Your task to perform on an android device: toggle priority inbox in the gmail app Image 0: 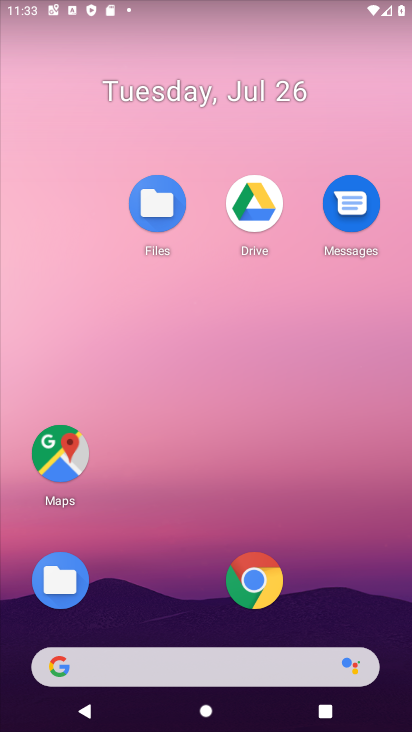
Step 0: drag from (215, 626) to (361, 23)
Your task to perform on an android device: toggle priority inbox in the gmail app Image 1: 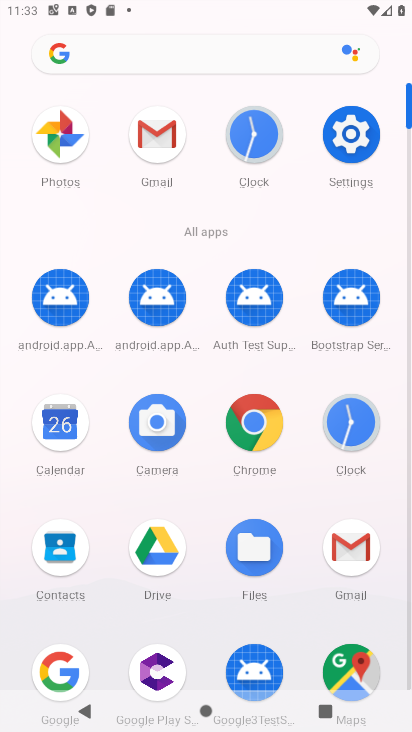
Step 1: click (168, 143)
Your task to perform on an android device: toggle priority inbox in the gmail app Image 2: 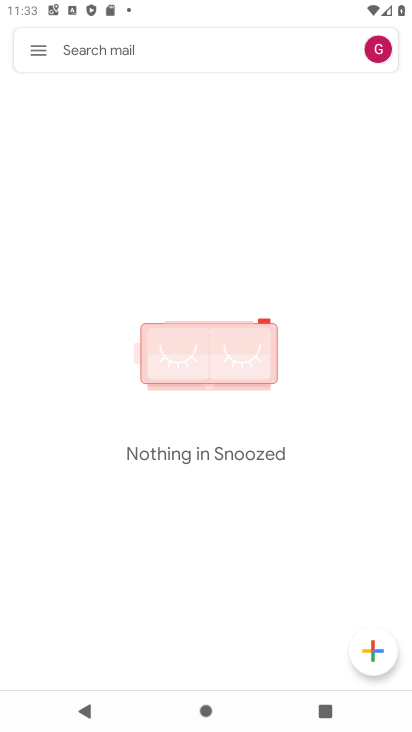
Step 2: click (43, 41)
Your task to perform on an android device: toggle priority inbox in the gmail app Image 3: 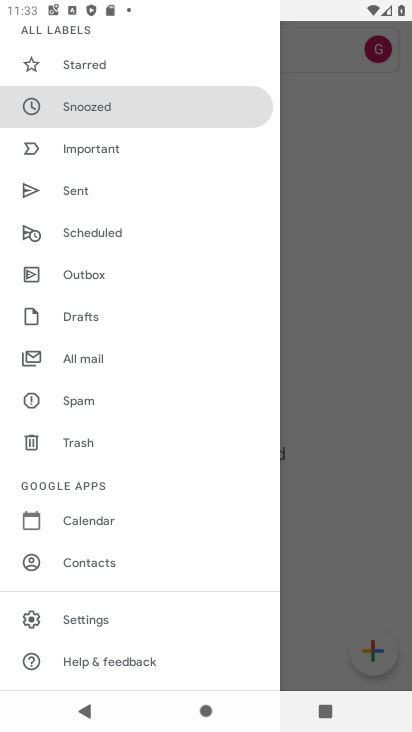
Step 3: click (122, 626)
Your task to perform on an android device: toggle priority inbox in the gmail app Image 4: 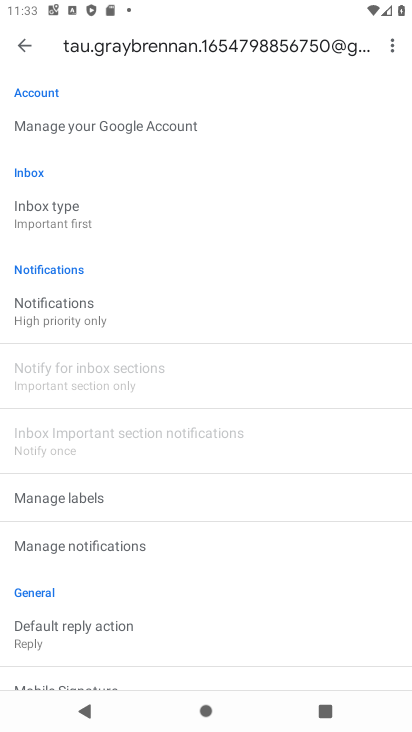
Step 4: click (174, 213)
Your task to perform on an android device: toggle priority inbox in the gmail app Image 5: 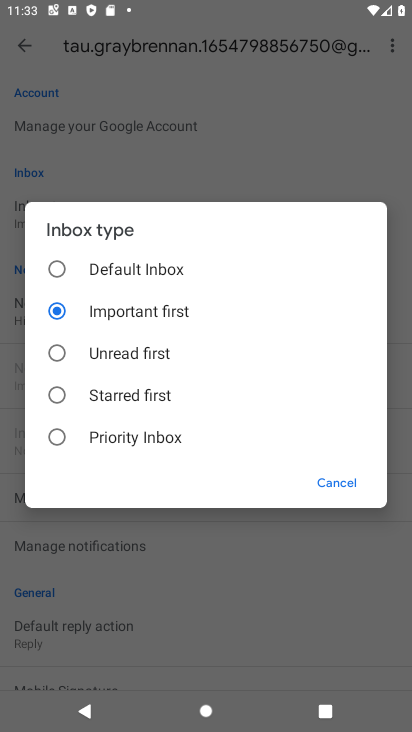
Step 5: click (159, 350)
Your task to perform on an android device: toggle priority inbox in the gmail app Image 6: 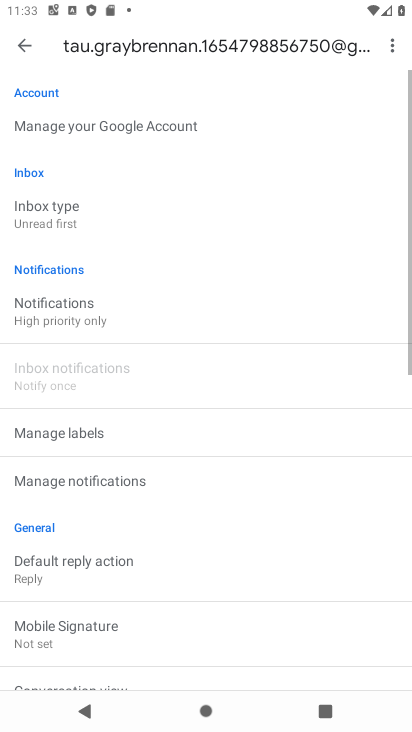
Step 6: task complete